Your task to perform on an android device: Open Google Chrome and open the bookmarks view Image 0: 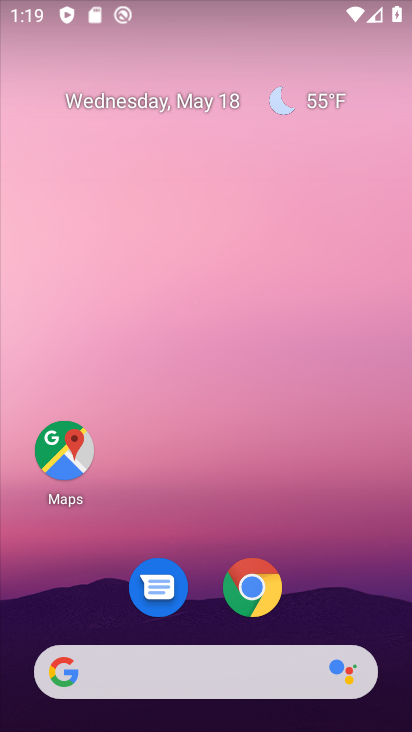
Step 0: click (242, 593)
Your task to perform on an android device: Open Google Chrome and open the bookmarks view Image 1: 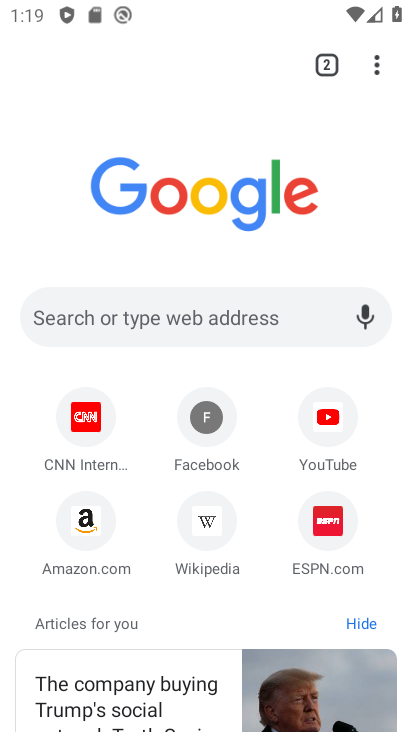
Step 1: task complete